Your task to perform on an android device: Open battery settings Image 0: 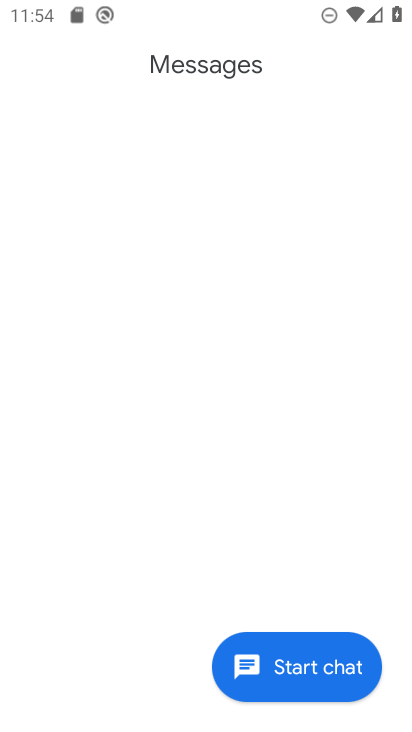
Step 0: click (242, 586)
Your task to perform on an android device: Open battery settings Image 1: 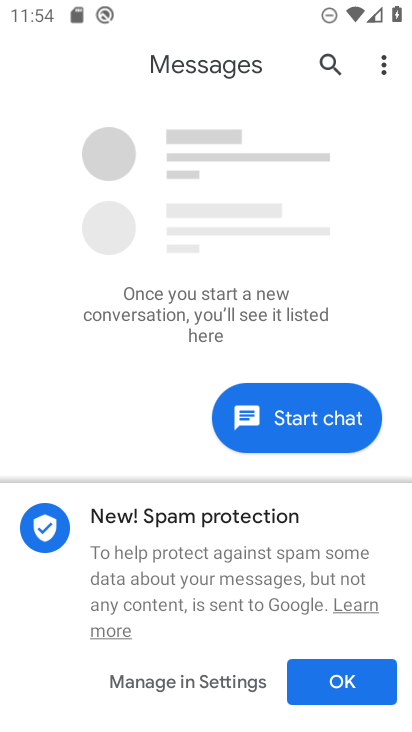
Step 1: click (334, 695)
Your task to perform on an android device: Open battery settings Image 2: 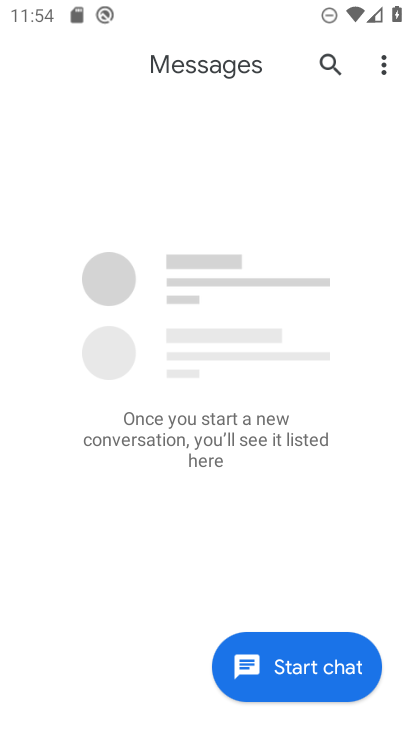
Step 2: press home button
Your task to perform on an android device: Open battery settings Image 3: 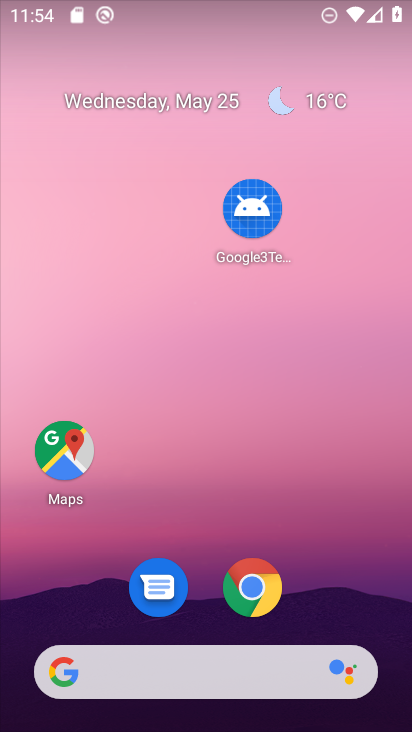
Step 3: drag from (237, 659) to (214, 327)
Your task to perform on an android device: Open battery settings Image 4: 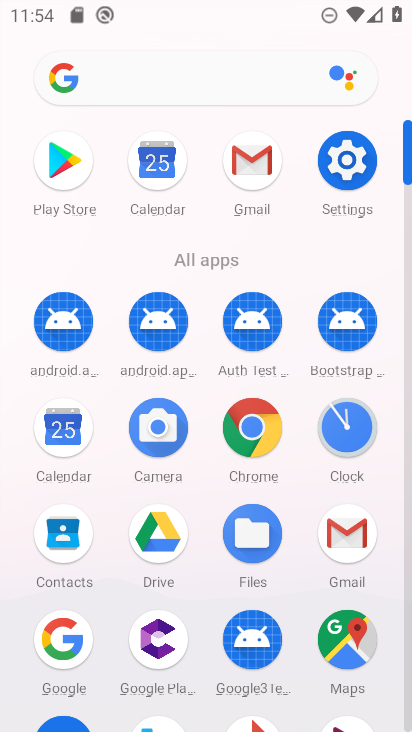
Step 4: click (341, 165)
Your task to perform on an android device: Open battery settings Image 5: 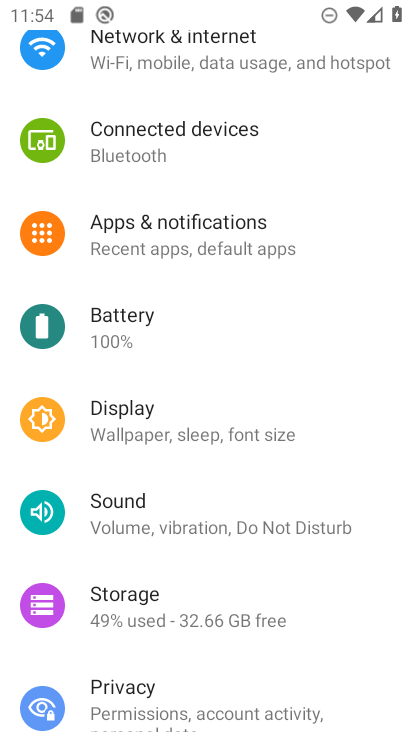
Step 5: click (130, 336)
Your task to perform on an android device: Open battery settings Image 6: 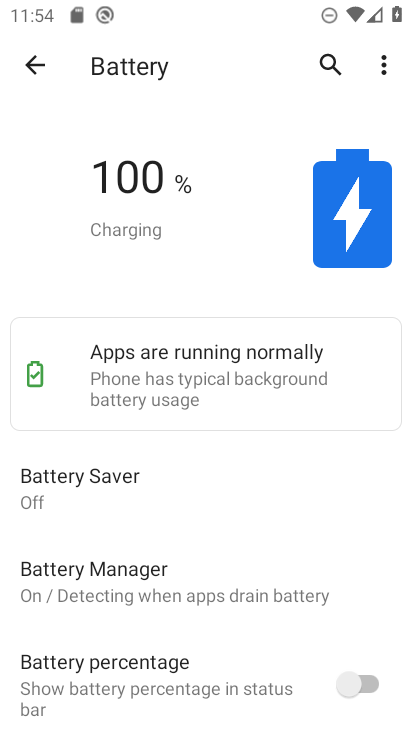
Step 6: task complete